Your task to perform on an android device: What's the weather going to be tomorrow? Image 0: 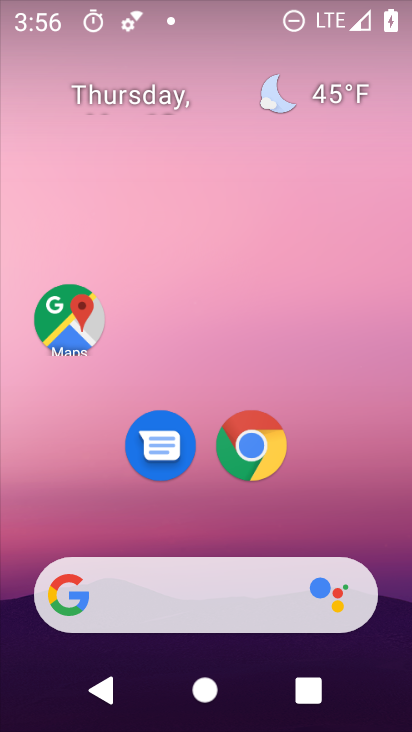
Step 0: drag from (201, 302) to (196, 12)
Your task to perform on an android device: What's the weather going to be tomorrow? Image 1: 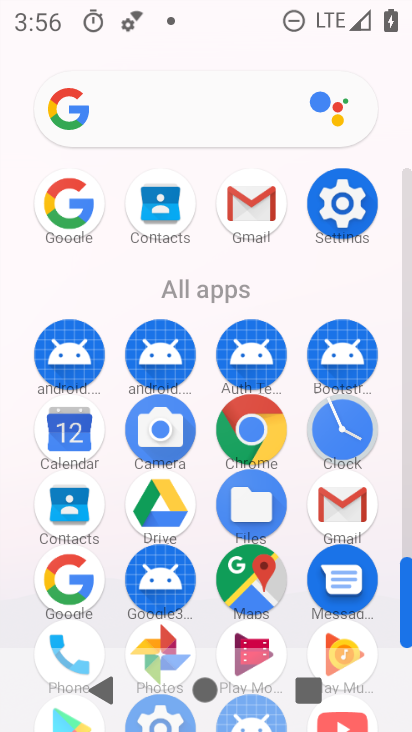
Step 1: click (63, 200)
Your task to perform on an android device: What's the weather going to be tomorrow? Image 2: 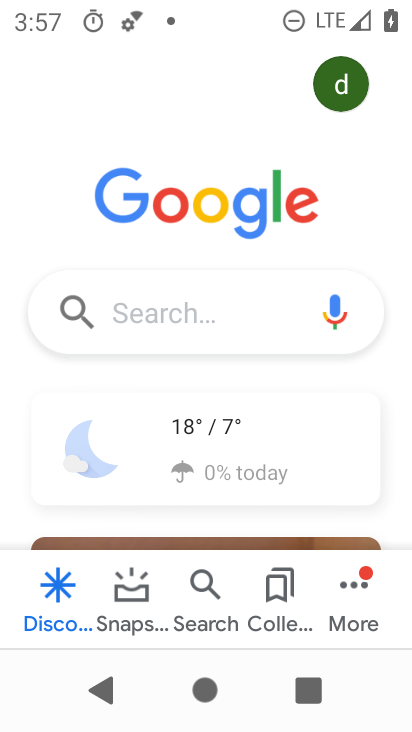
Step 2: click (229, 314)
Your task to perform on an android device: What's the weather going to be tomorrow? Image 3: 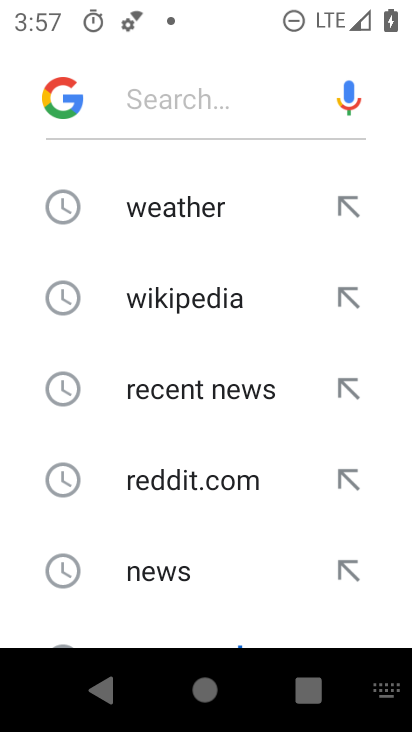
Step 3: type "weather going to be tomorrow"
Your task to perform on an android device: What's the weather going to be tomorrow? Image 4: 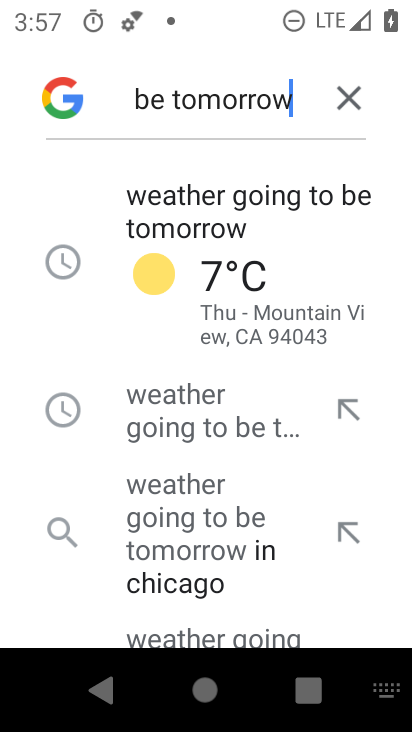
Step 4: click (169, 227)
Your task to perform on an android device: What's the weather going to be tomorrow? Image 5: 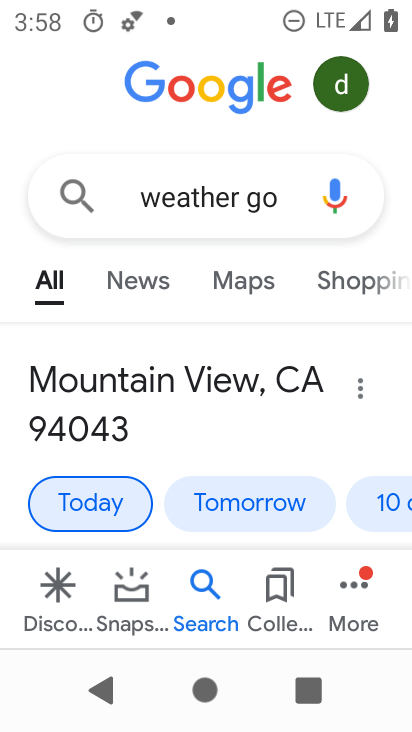
Step 5: drag from (253, 398) to (286, 144)
Your task to perform on an android device: What's the weather going to be tomorrow? Image 6: 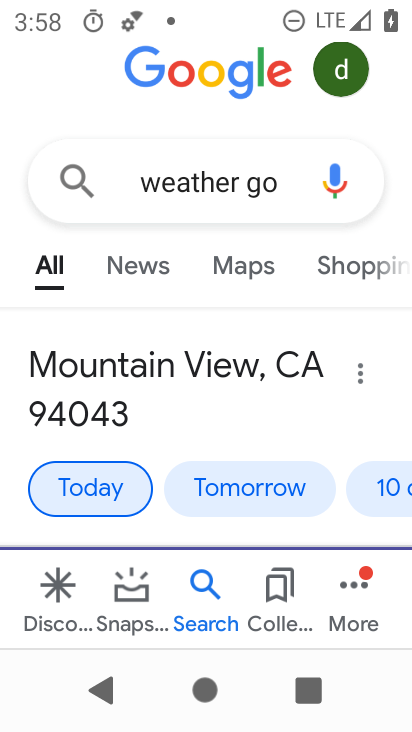
Step 6: drag from (248, 451) to (304, 187)
Your task to perform on an android device: What's the weather going to be tomorrow? Image 7: 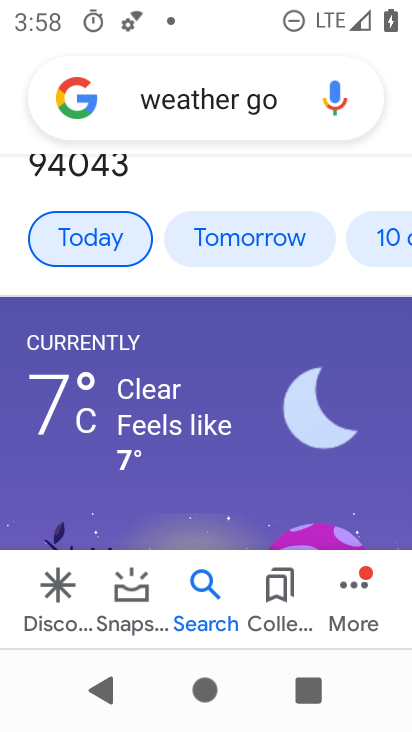
Step 7: drag from (230, 425) to (260, 305)
Your task to perform on an android device: What's the weather going to be tomorrow? Image 8: 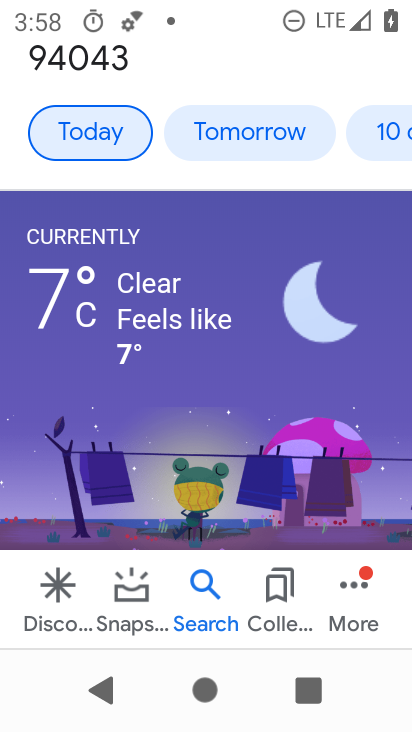
Step 8: click (254, 135)
Your task to perform on an android device: What's the weather going to be tomorrow? Image 9: 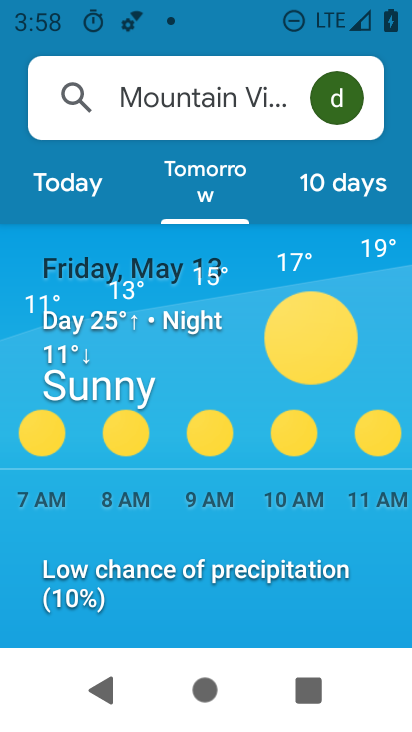
Step 9: task complete